Your task to perform on an android device: turn notification dots on Image 0: 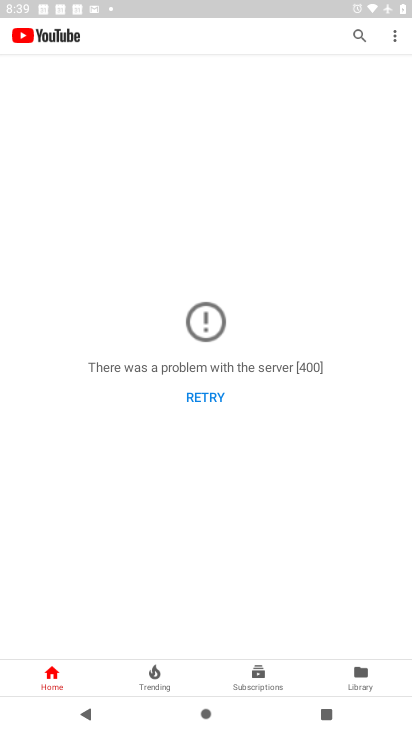
Step 0: press home button
Your task to perform on an android device: turn notification dots on Image 1: 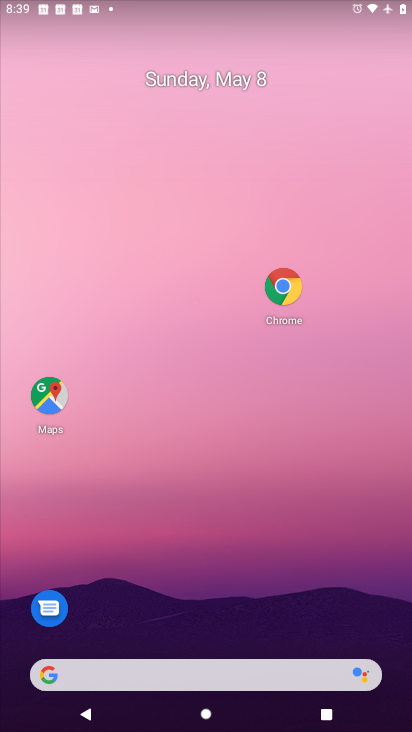
Step 1: drag from (182, 686) to (318, 99)
Your task to perform on an android device: turn notification dots on Image 2: 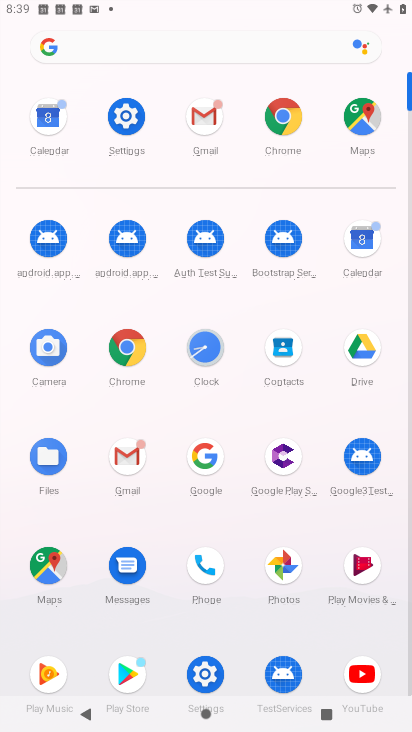
Step 2: click (128, 119)
Your task to perform on an android device: turn notification dots on Image 3: 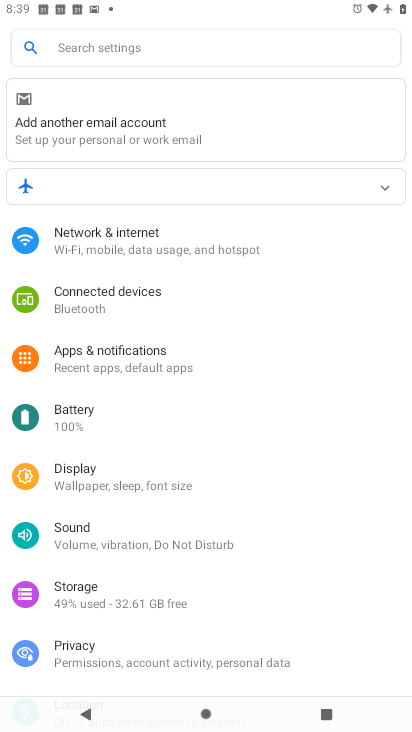
Step 3: click (119, 352)
Your task to perform on an android device: turn notification dots on Image 4: 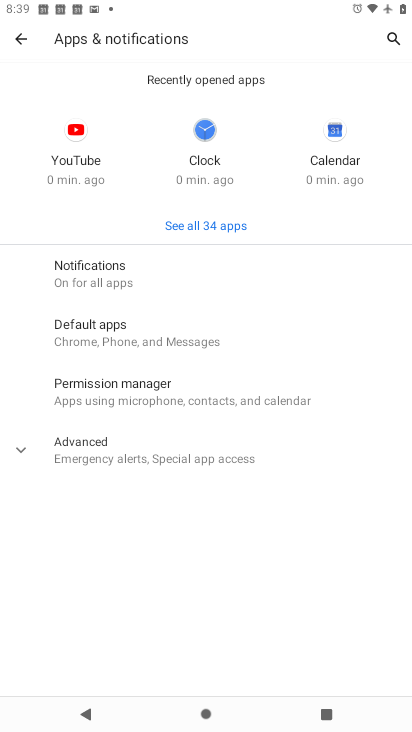
Step 4: click (97, 270)
Your task to perform on an android device: turn notification dots on Image 5: 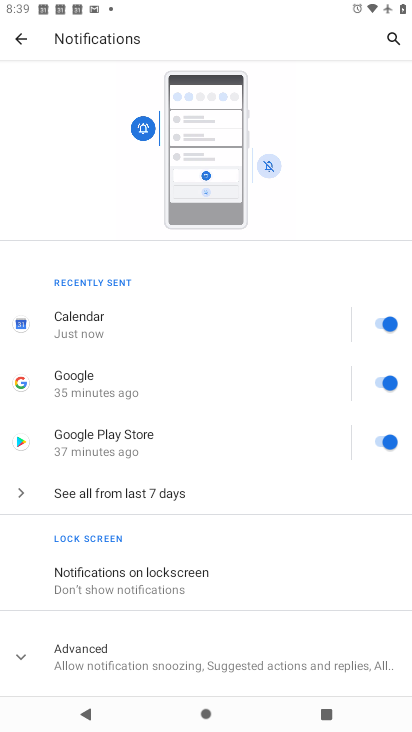
Step 5: drag from (216, 528) to (263, 293)
Your task to perform on an android device: turn notification dots on Image 6: 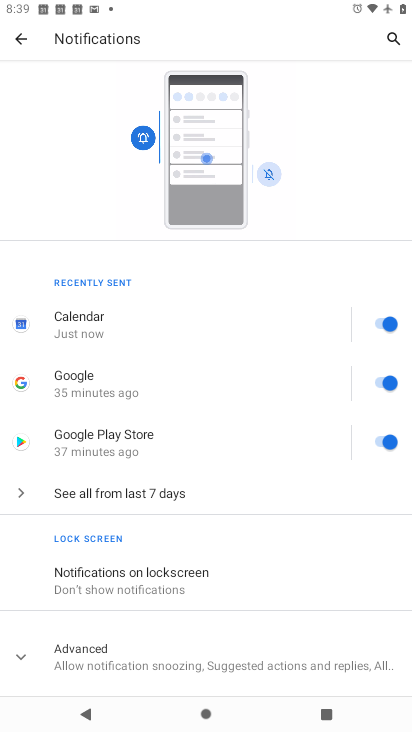
Step 6: click (76, 650)
Your task to perform on an android device: turn notification dots on Image 7: 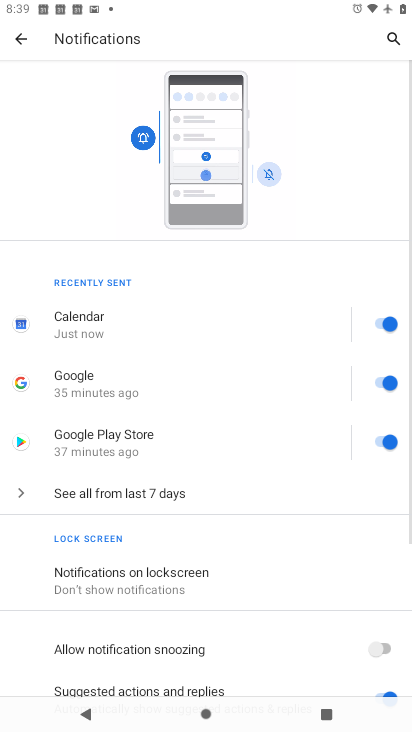
Step 7: task complete